Your task to perform on an android device: add a label to a message in the gmail app Image 0: 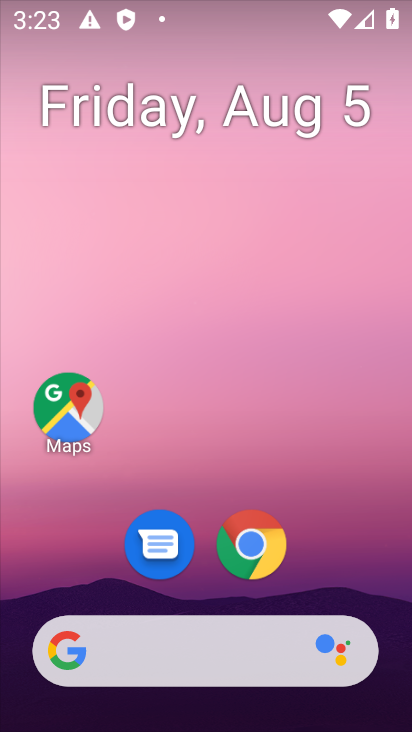
Step 0: drag from (149, 612) to (132, 255)
Your task to perform on an android device: add a label to a message in the gmail app Image 1: 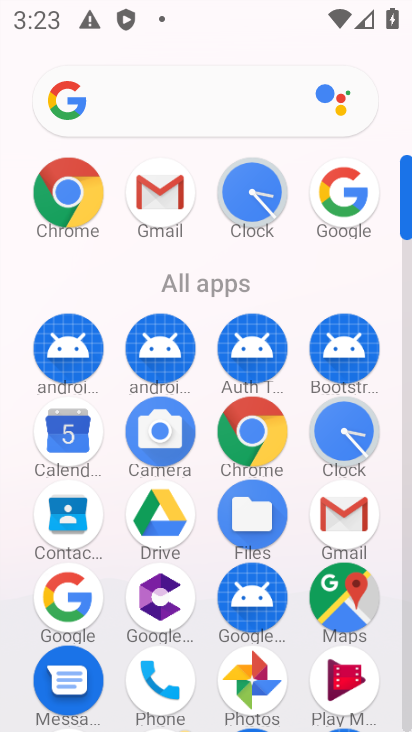
Step 1: click (153, 209)
Your task to perform on an android device: add a label to a message in the gmail app Image 2: 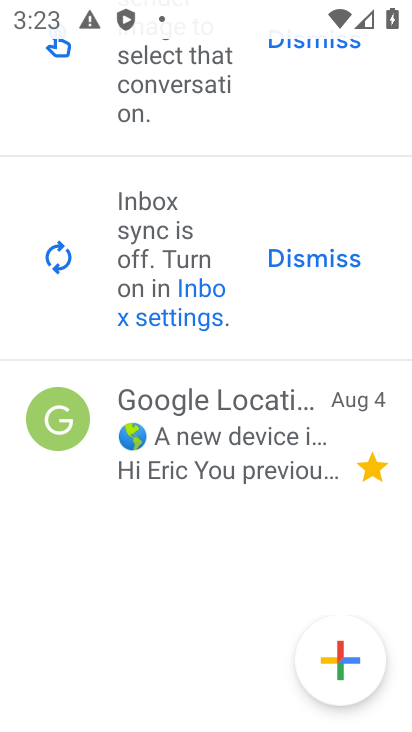
Step 2: drag from (218, 111) to (218, 489)
Your task to perform on an android device: add a label to a message in the gmail app Image 3: 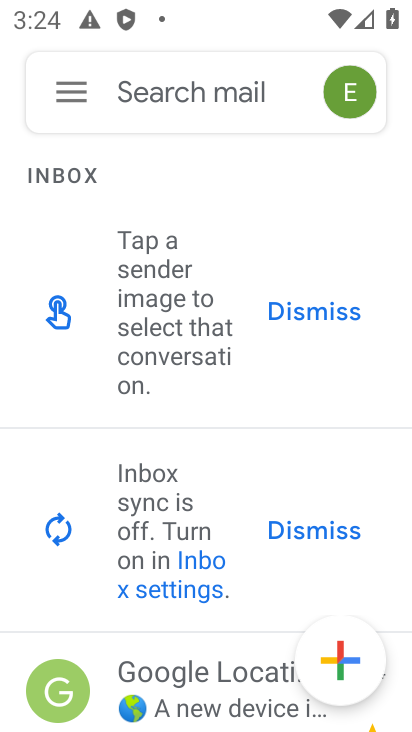
Step 3: drag from (184, 681) to (184, 361)
Your task to perform on an android device: add a label to a message in the gmail app Image 4: 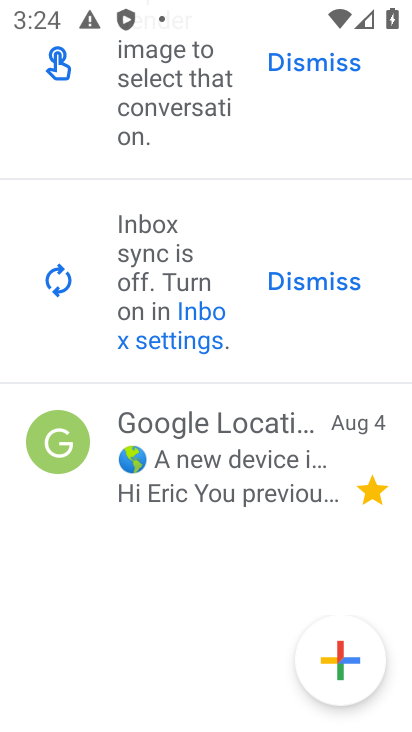
Step 4: click (220, 454)
Your task to perform on an android device: add a label to a message in the gmail app Image 5: 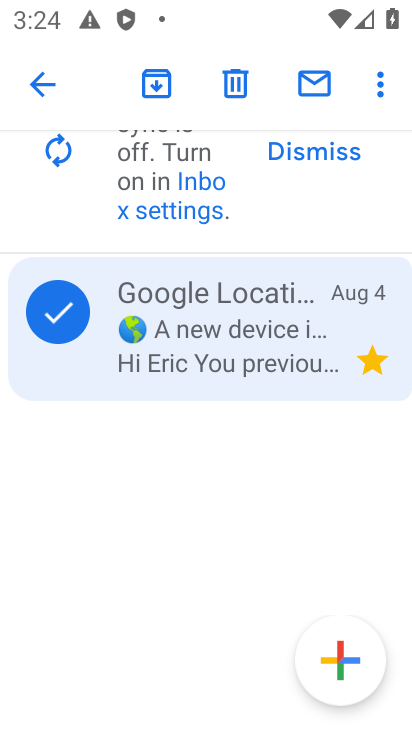
Step 5: click (376, 85)
Your task to perform on an android device: add a label to a message in the gmail app Image 6: 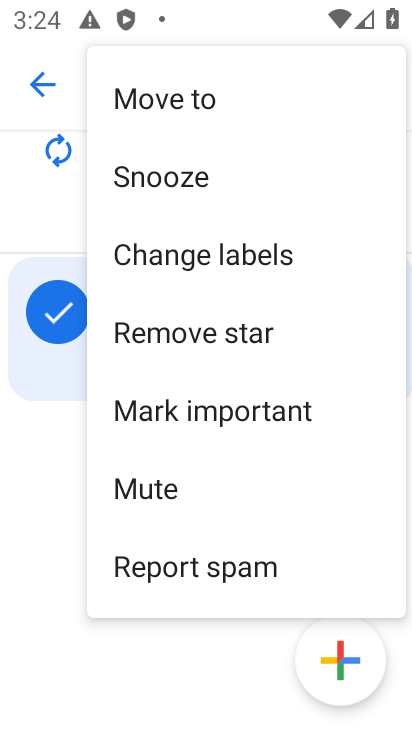
Step 6: click (173, 258)
Your task to perform on an android device: add a label to a message in the gmail app Image 7: 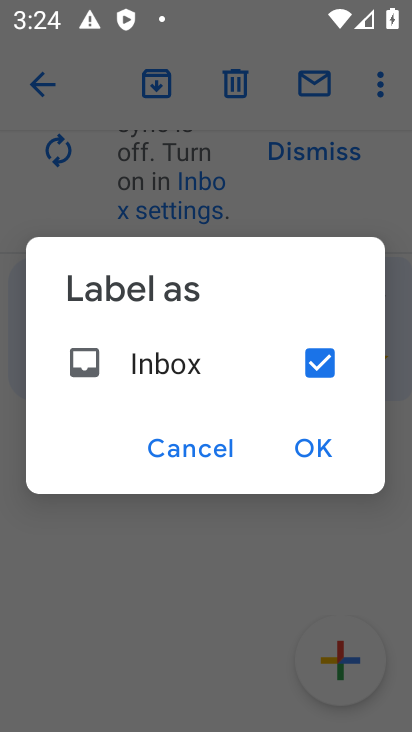
Step 7: click (317, 449)
Your task to perform on an android device: add a label to a message in the gmail app Image 8: 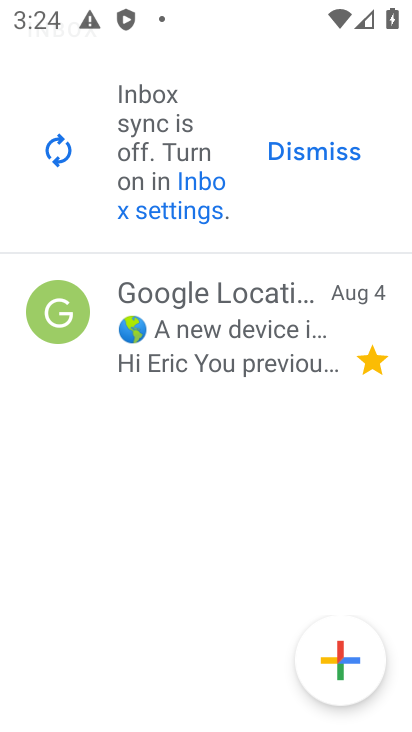
Step 8: task complete